Your task to perform on an android device: turn off wifi Image 0: 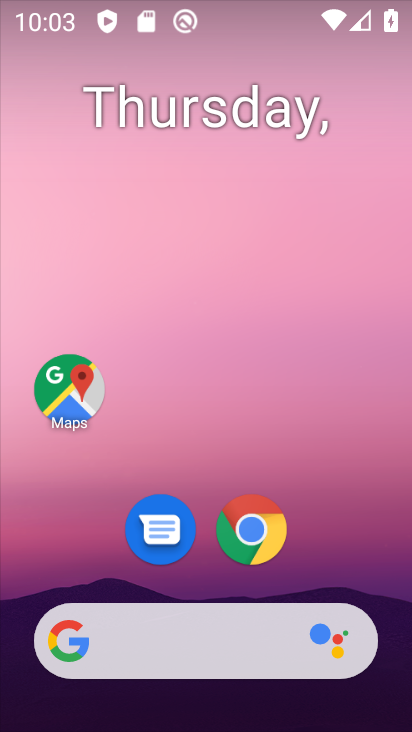
Step 0: press home button
Your task to perform on an android device: turn off wifi Image 1: 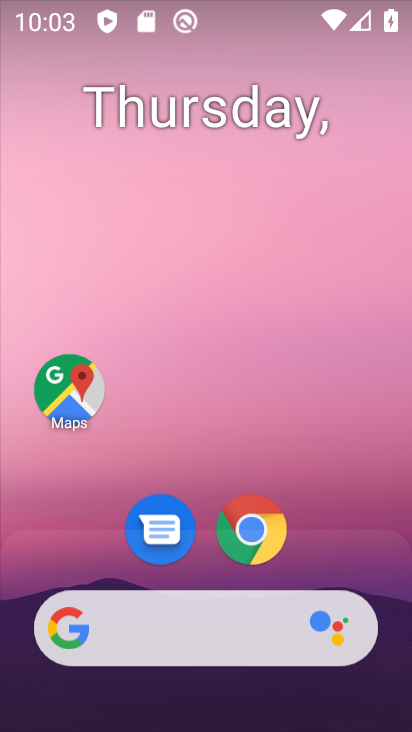
Step 1: drag from (325, 560) to (297, 203)
Your task to perform on an android device: turn off wifi Image 2: 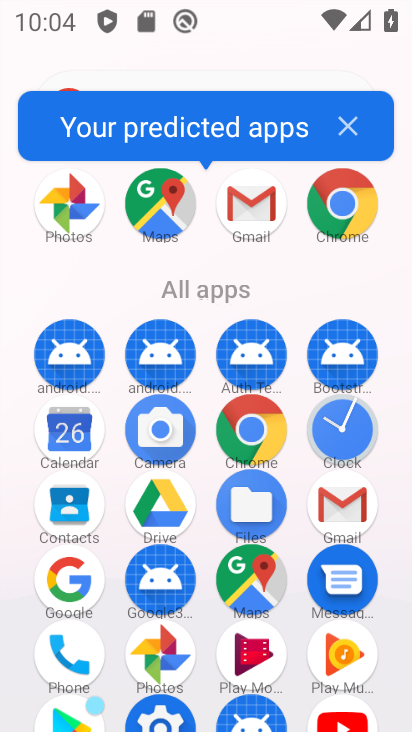
Step 2: click (160, 719)
Your task to perform on an android device: turn off wifi Image 3: 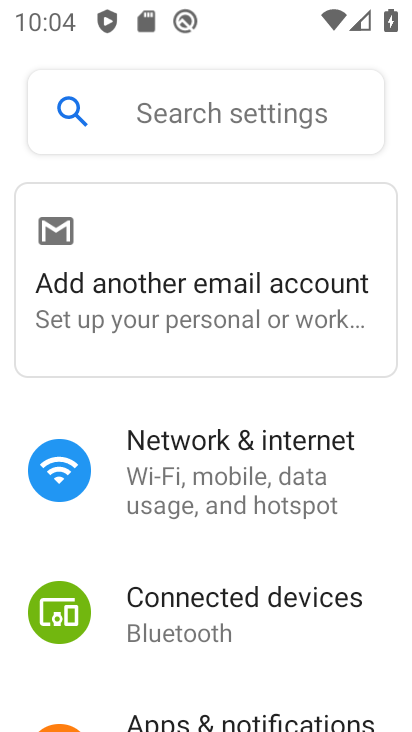
Step 3: click (235, 447)
Your task to perform on an android device: turn off wifi Image 4: 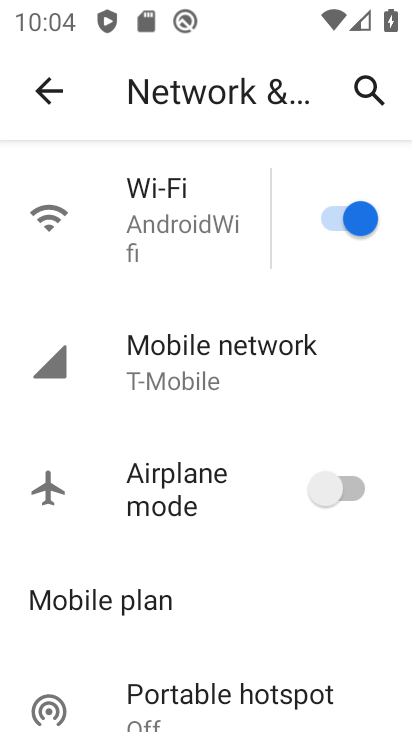
Step 4: click (323, 219)
Your task to perform on an android device: turn off wifi Image 5: 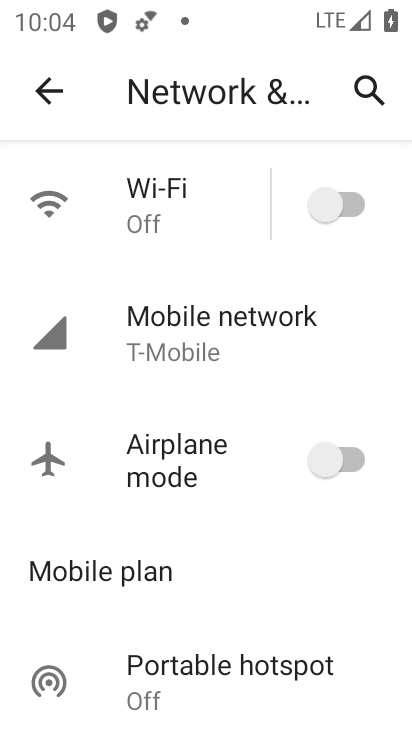
Step 5: task complete